Your task to perform on an android device: Search for Italian restaurants on Maps Image 0: 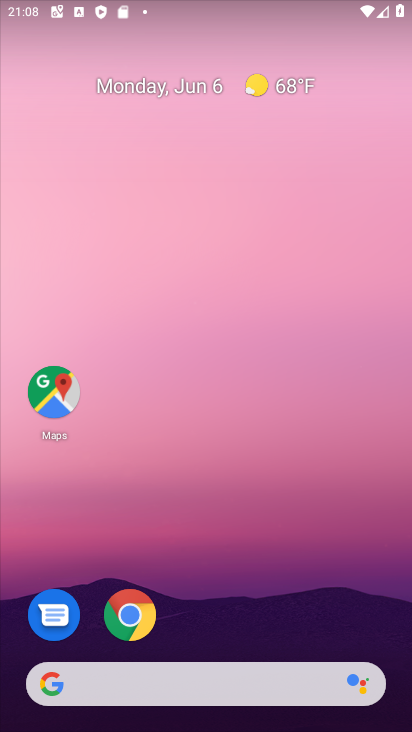
Step 0: click (63, 387)
Your task to perform on an android device: Search for Italian restaurants on Maps Image 1: 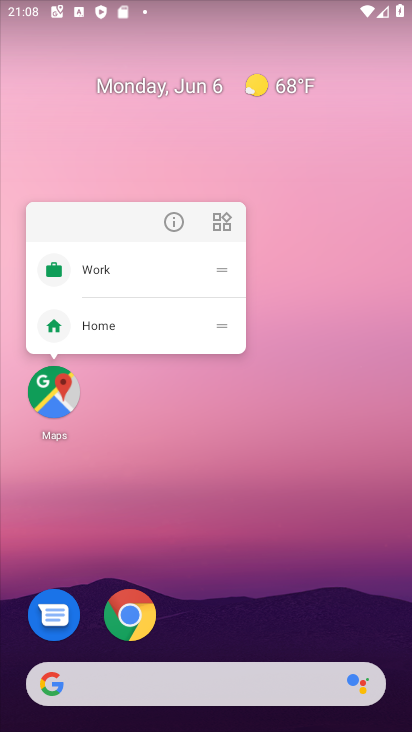
Step 1: click (63, 388)
Your task to perform on an android device: Search for Italian restaurants on Maps Image 2: 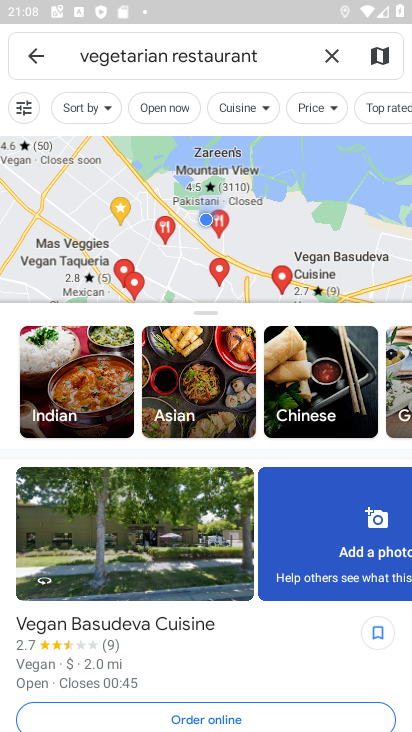
Step 2: click (335, 61)
Your task to perform on an android device: Search for Italian restaurants on Maps Image 3: 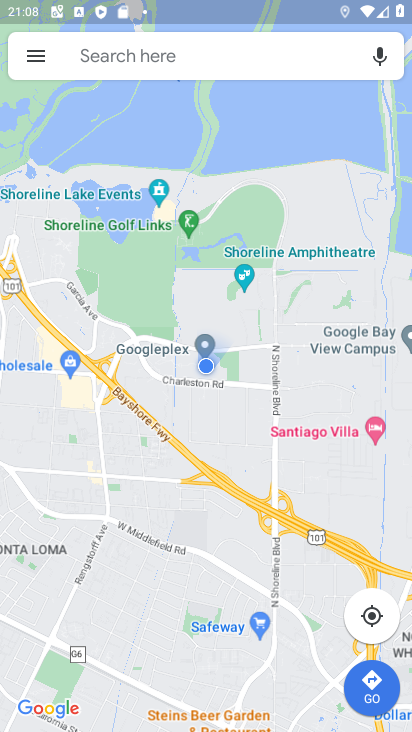
Step 3: click (79, 53)
Your task to perform on an android device: Search for Italian restaurants on Maps Image 4: 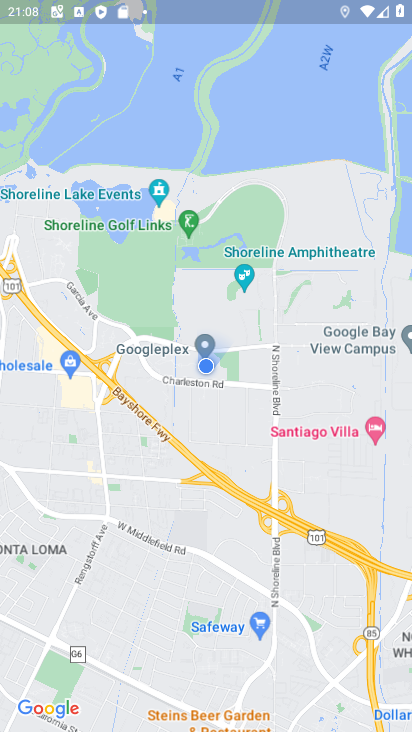
Step 4: press back button
Your task to perform on an android device: Search for Italian restaurants on Maps Image 5: 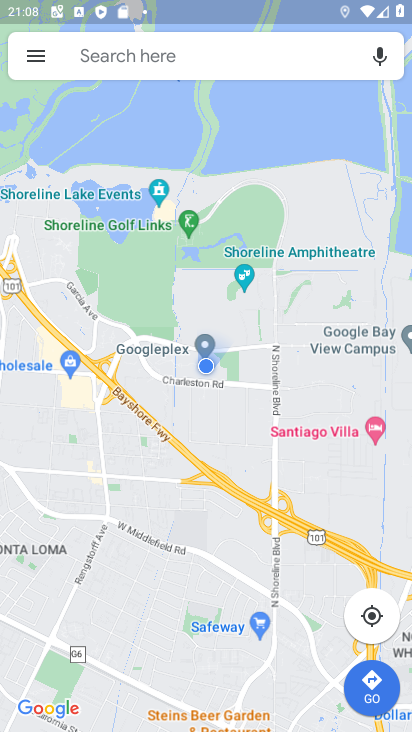
Step 5: click (74, 56)
Your task to perform on an android device: Search for Italian restaurants on Maps Image 6: 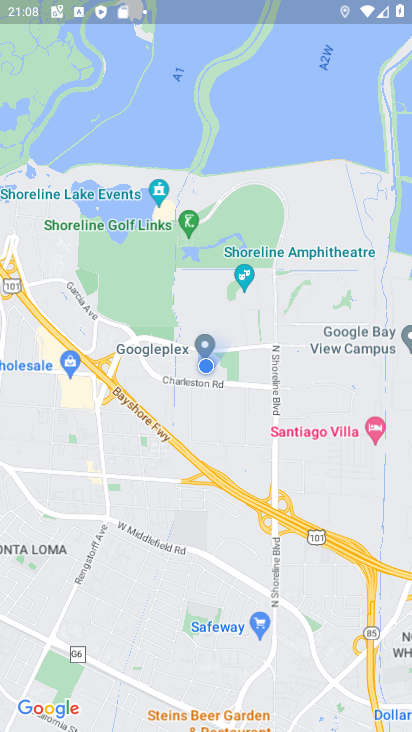
Step 6: click (86, 114)
Your task to perform on an android device: Search for Italian restaurants on Maps Image 7: 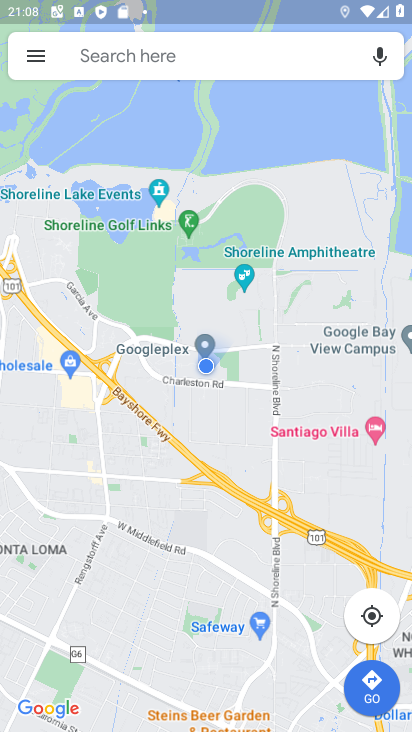
Step 7: click (80, 57)
Your task to perform on an android device: Search for Italian restaurants on Maps Image 8: 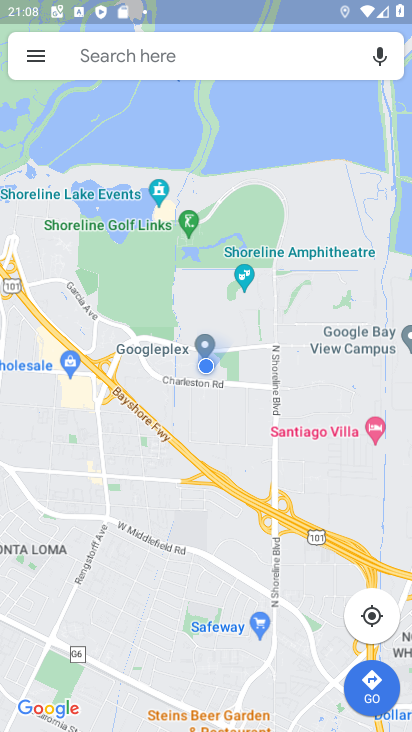
Step 8: click (121, 50)
Your task to perform on an android device: Search for Italian restaurants on Maps Image 9: 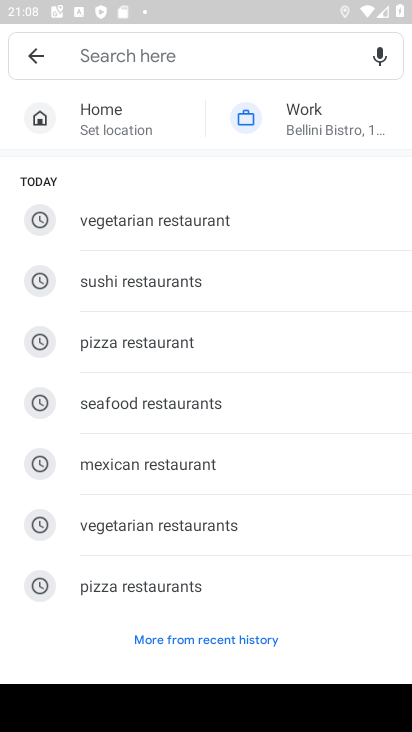
Step 9: type "Italian restaurants"
Your task to perform on an android device: Search for Italian restaurants on Maps Image 10: 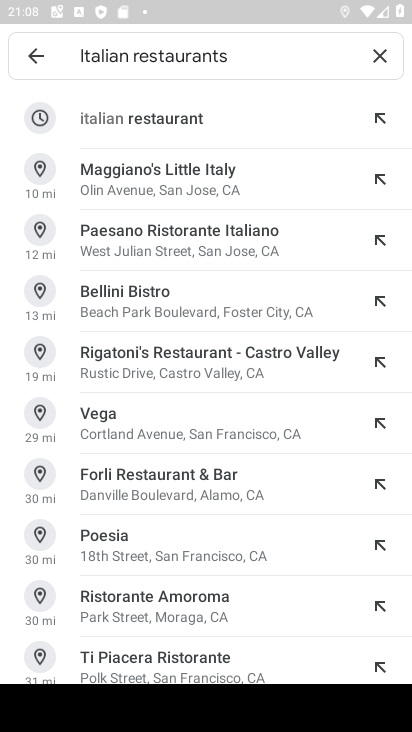
Step 10: click (169, 107)
Your task to perform on an android device: Search for Italian restaurants on Maps Image 11: 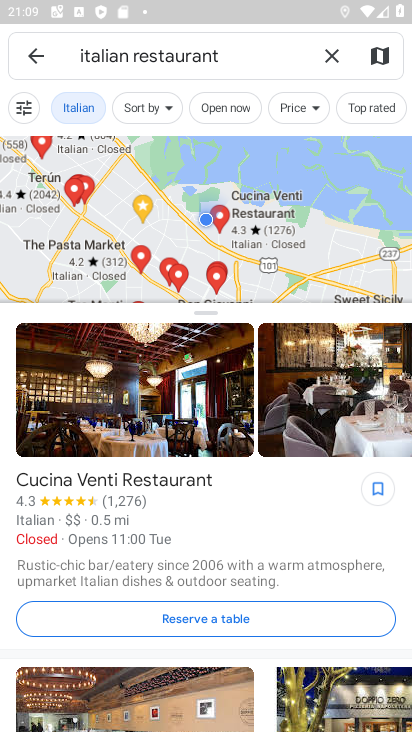
Step 11: task complete